Your task to perform on an android device: show emergency info Image 0: 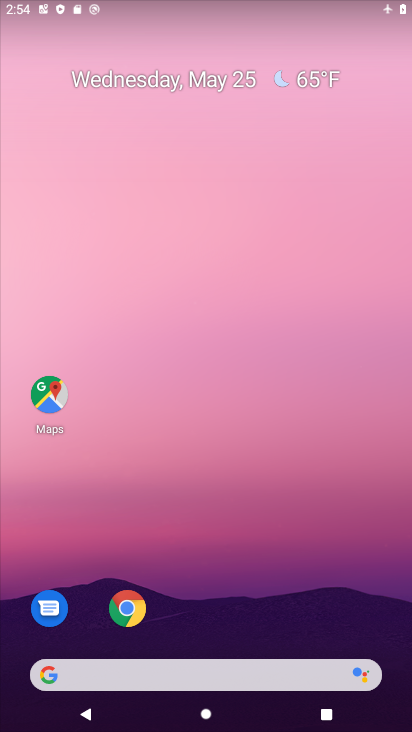
Step 0: drag from (290, 557) to (285, 3)
Your task to perform on an android device: show emergency info Image 1: 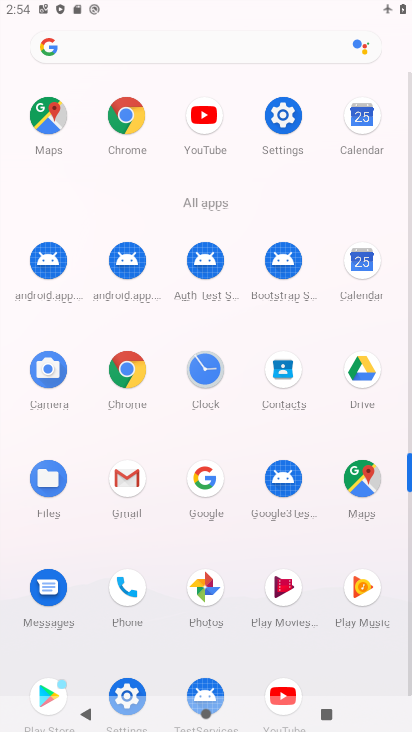
Step 1: click (283, 127)
Your task to perform on an android device: show emergency info Image 2: 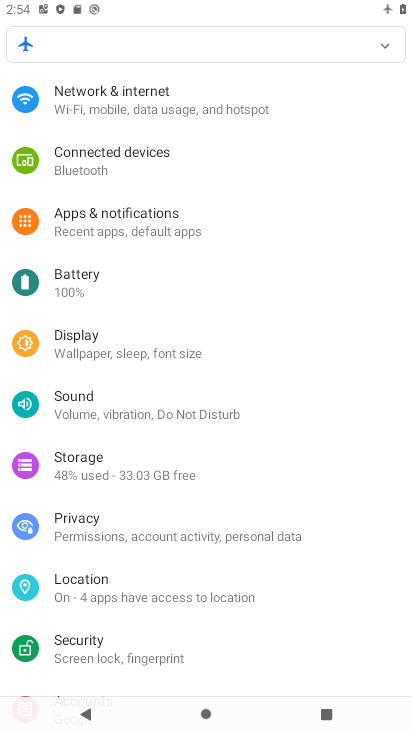
Step 2: drag from (283, 597) to (257, 62)
Your task to perform on an android device: show emergency info Image 3: 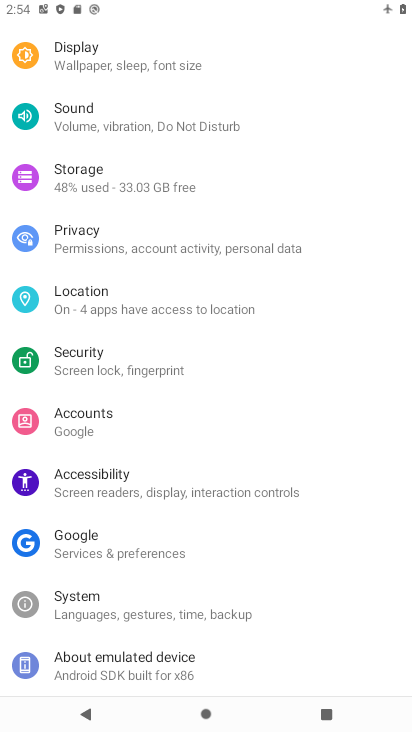
Step 3: click (118, 662)
Your task to perform on an android device: show emergency info Image 4: 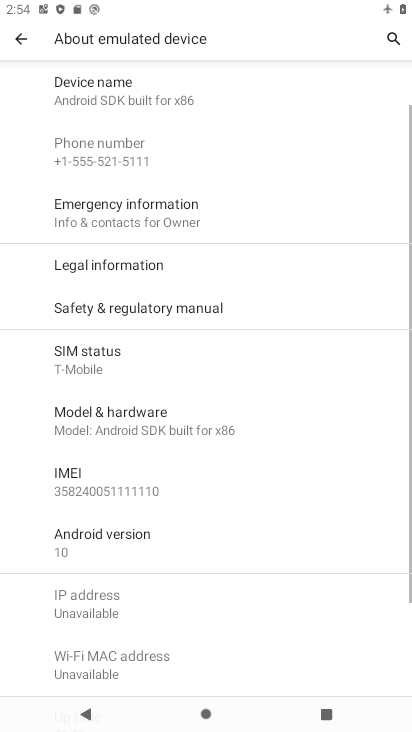
Step 4: click (95, 212)
Your task to perform on an android device: show emergency info Image 5: 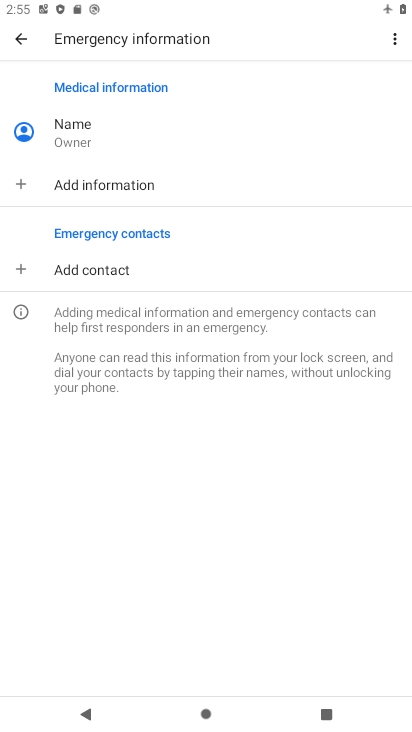
Step 5: task complete